Your task to perform on an android device: Open calendar and show me the fourth week of next month Image 0: 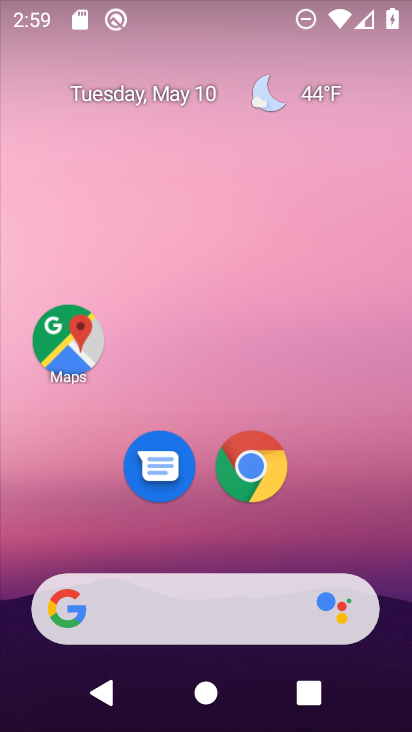
Step 0: drag from (297, 534) to (249, 2)
Your task to perform on an android device: Open calendar and show me the fourth week of next month Image 1: 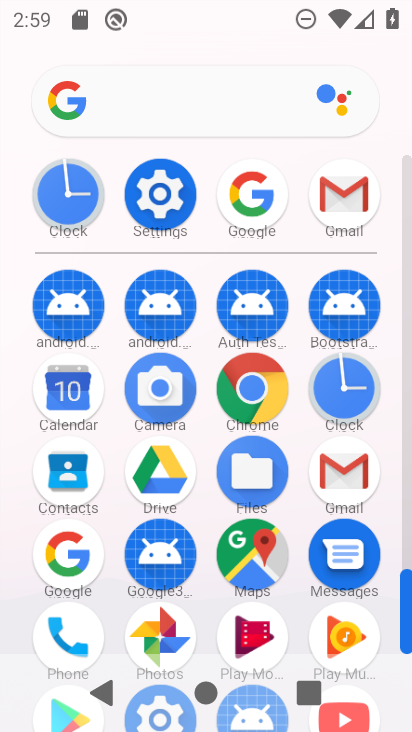
Step 1: click (46, 378)
Your task to perform on an android device: Open calendar and show me the fourth week of next month Image 2: 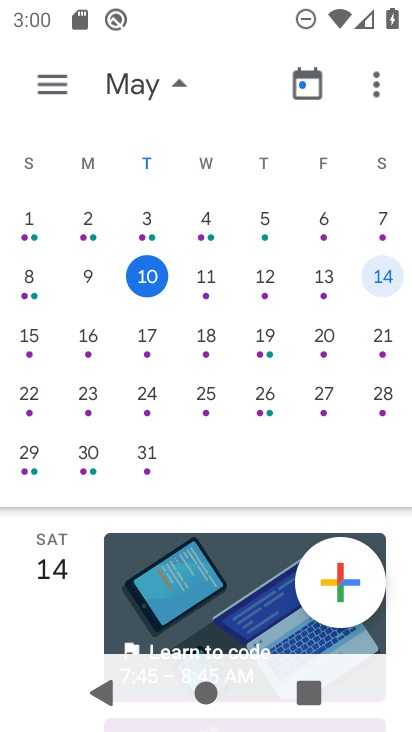
Step 2: drag from (342, 353) to (3, 299)
Your task to perform on an android device: Open calendar and show me the fourth week of next month Image 3: 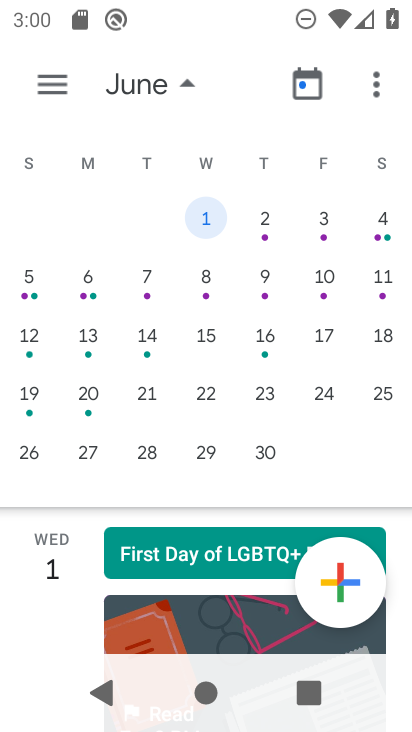
Step 3: click (32, 401)
Your task to perform on an android device: Open calendar and show me the fourth week of next month Image 4: 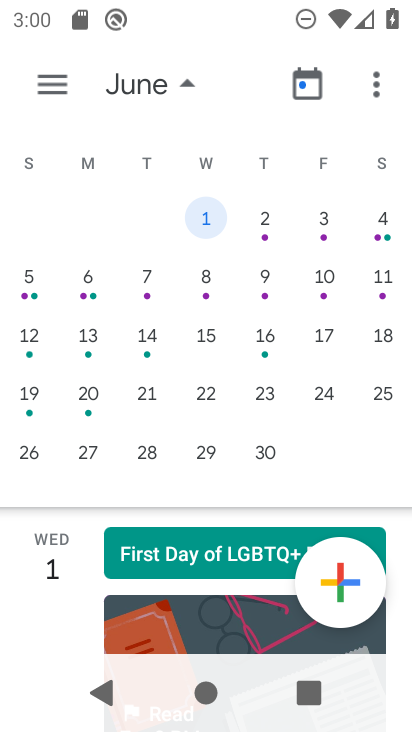
Step 4: click (46, 399)
Your task to perform on an android device: Open calendar and show me the fourth week of next month Image 5: 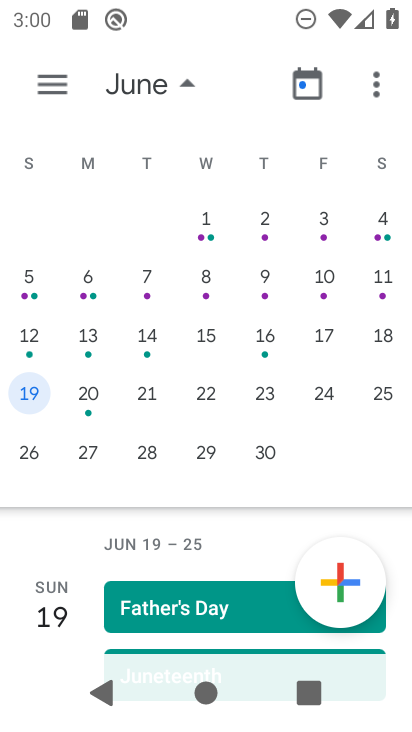
Step 5: task complete